Your task to perform on an android device: Go to Yahoo.com Image 0: 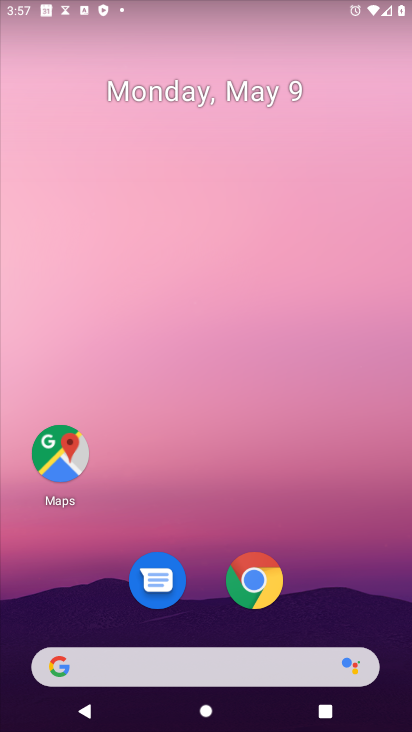
Step 0: click (264, 580)
Your task to perform on an android device: Go to Yahoo.com Image 1: 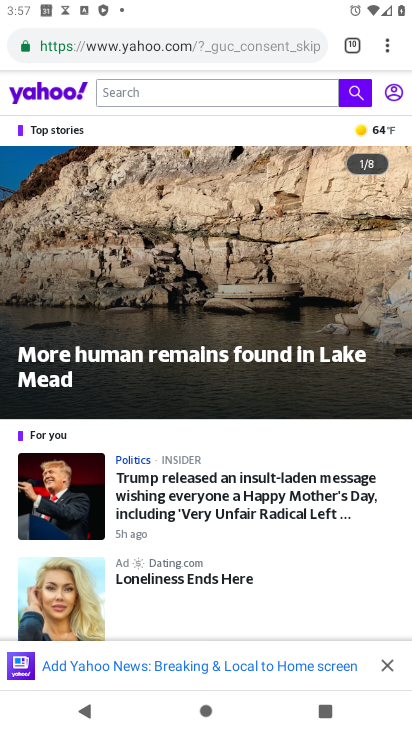
Step 1: task complete